Your task to perform on an android device: Go to display settings Image 0: 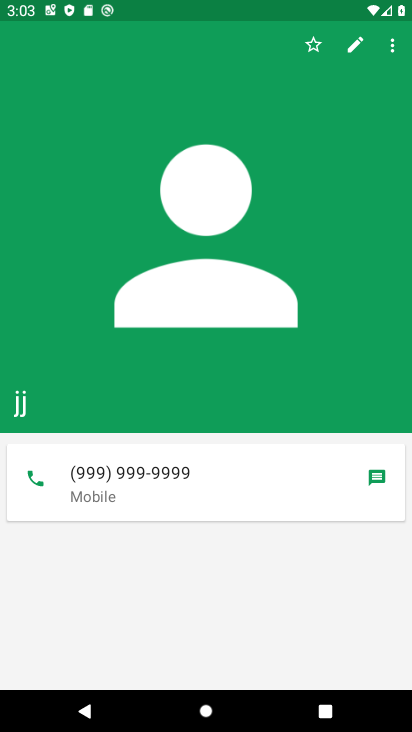
Step 0: press home button
Your task to perform on an android device: Go to display settings Image 1: 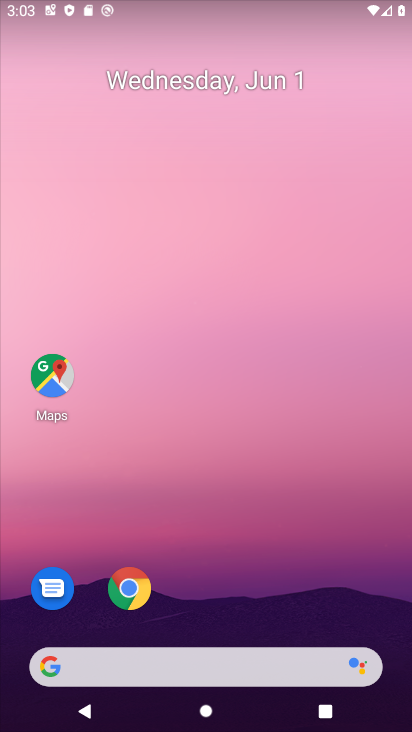
Step 1: drag from (364, 501) to (299, 107)
Your task to perform on an android device: Go to display settings Image 2: 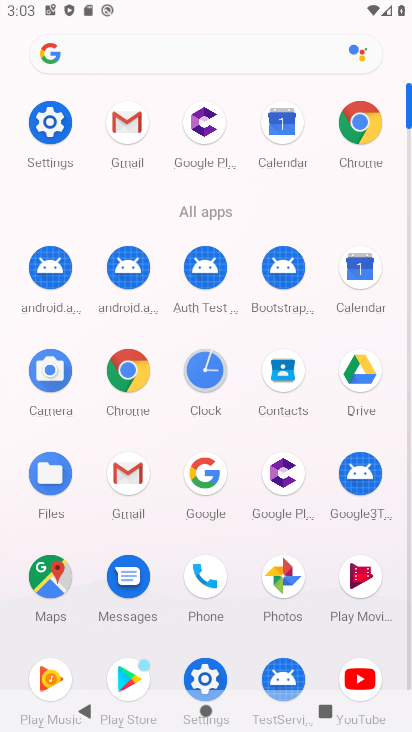
Step 2: click (60, 142)
Your task to perform on an android device: Go to display settings Image 3: 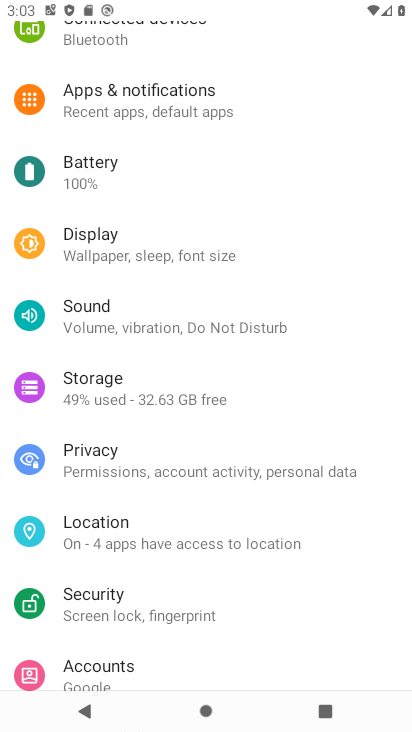
Step 3: drag from (199, 561) to (185, 467)
Your task to perform on an android device: Go to display settings Image 4: 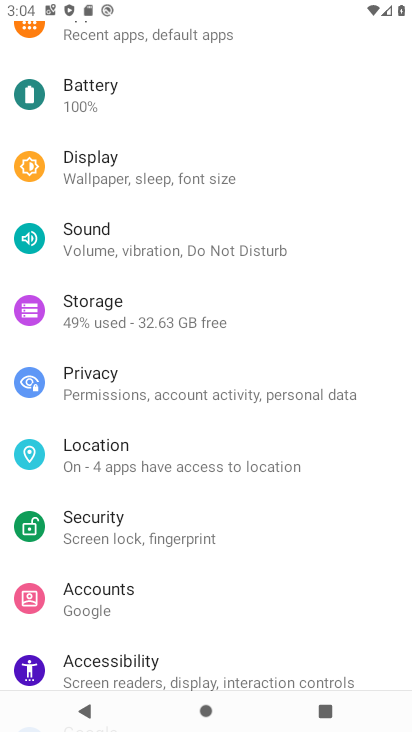
Step 4: click (102, 171)
Your task to perform on an android device: Go to display settings Image 5: 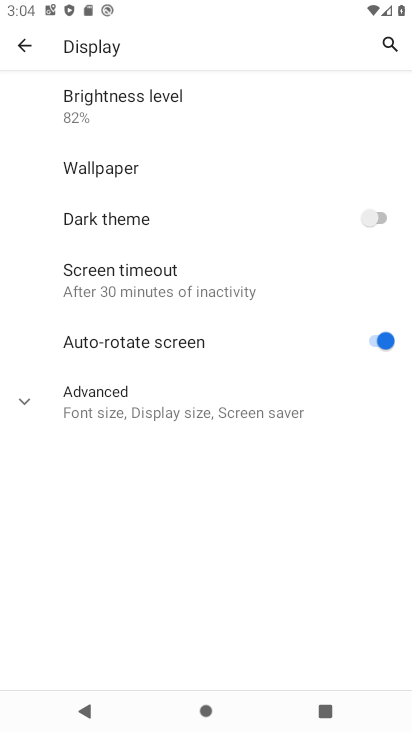
Step 5: task complete